Your task to perform on an android device: Open notification settings Image 0: 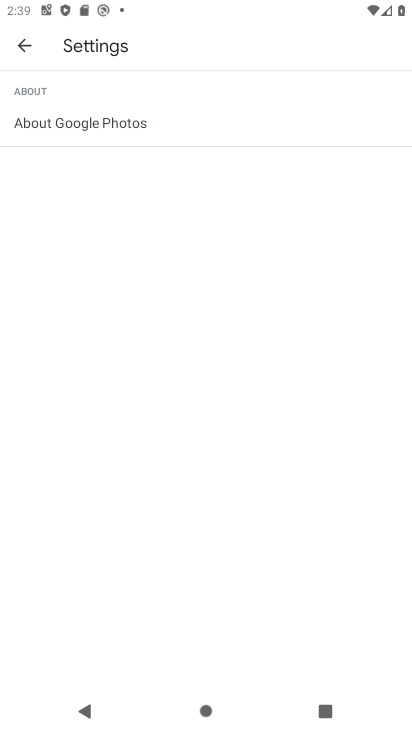
Step 0: press home button
Your task to perform on an android device: Open notification settings Image 1: 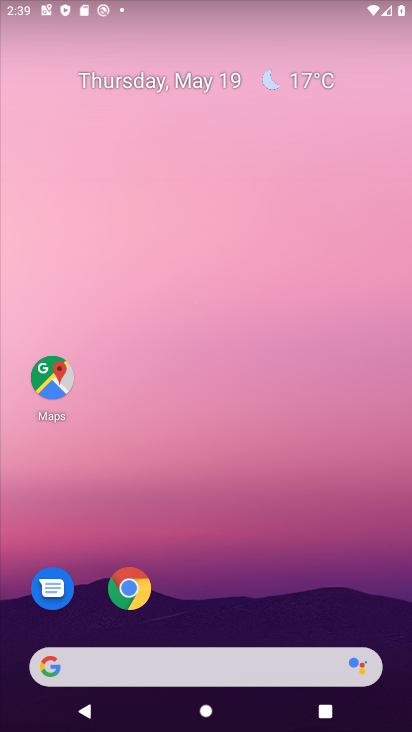
Step 1: drag from (274, 520) to (265, 116)
Your task to perform on an android device: Open notification settings Image 2: 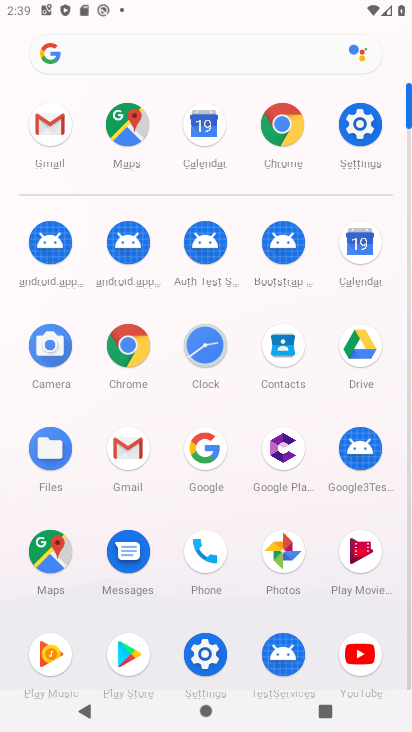
Step 2: click (360, 127)
Your task to perform on an android device: Open notification settings Image 3: 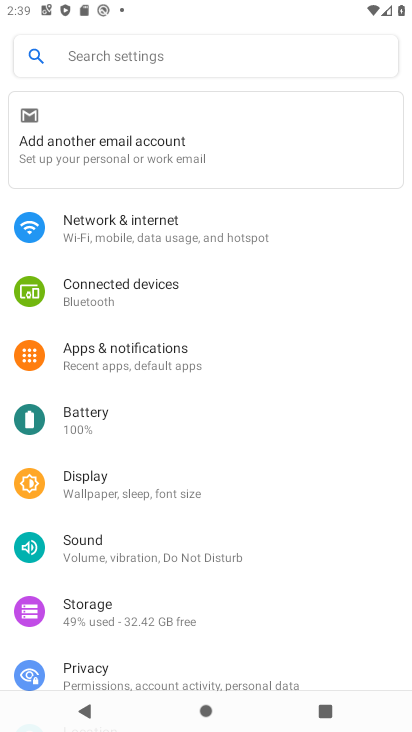
Step 3: click (118, 359)
Your task to perform on an android device: Open notification settings Image 4: 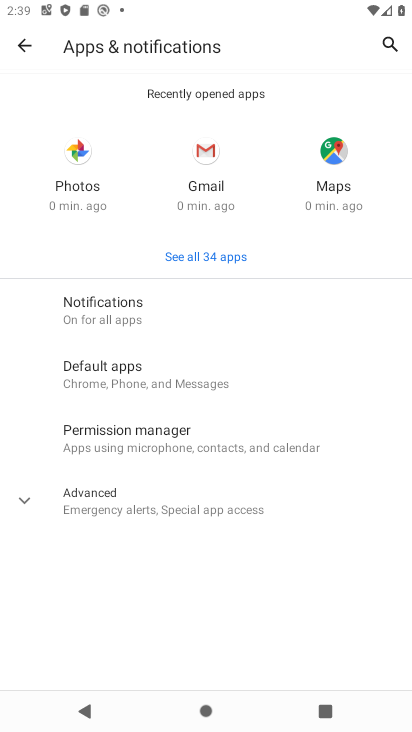
Step 4: click (106, 313)
Your task to perform on an android device: Open notification settings Image 5: 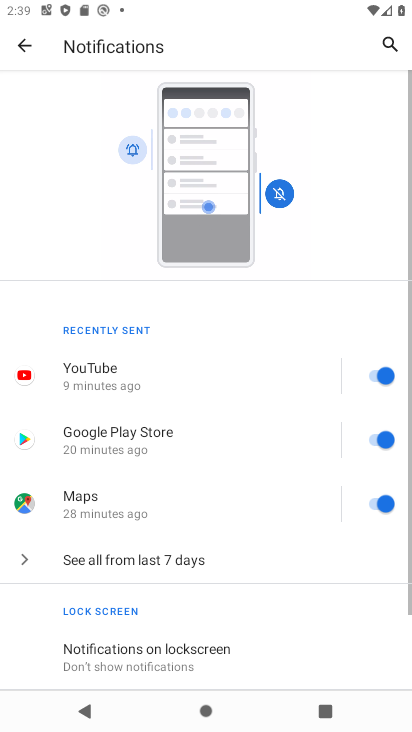
Step 5: task complete